Your task to perform on an android device: Go to network settings Image 0: 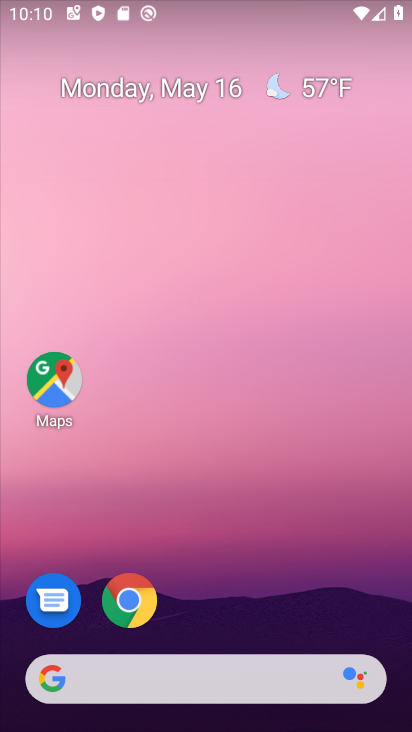
Step 0: drag from (319, 607) to (307, 171)
Your task to perform on an android device: Go to network settings Image 1: 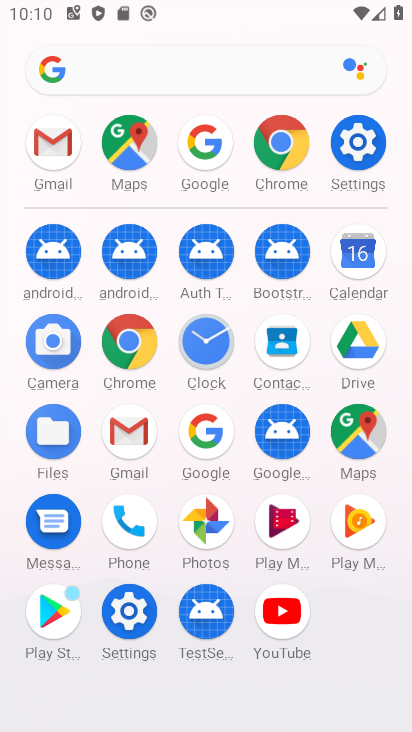
Step 1: click (354, 155)
Your task to perform on an android device: Go to network settings Image 2: 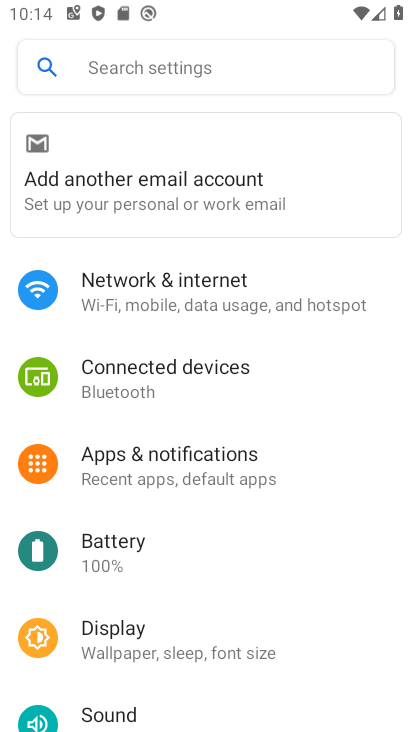
Step 2: click (204, 280)
Your task to perform on an android device: Go to network settings Image 3: 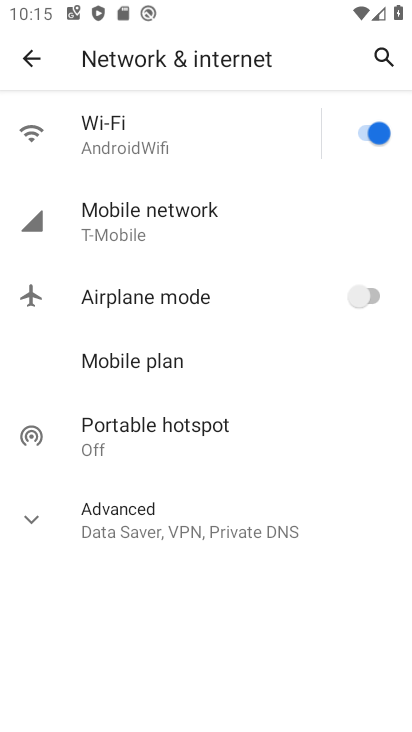
Step 3: task complete